Your task to perform on an android device: Open Yahoo.com Image 0: 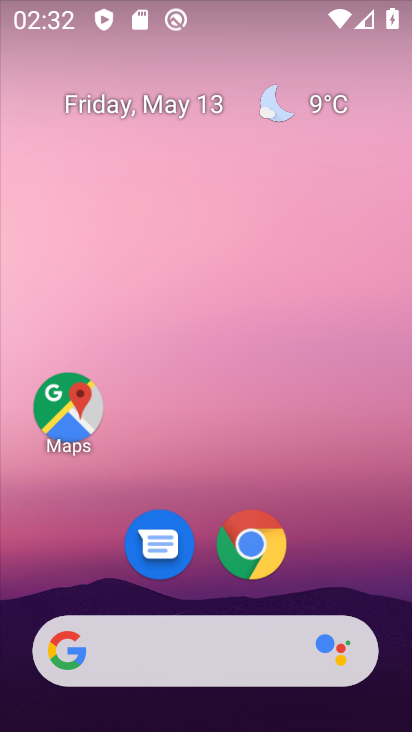
Step 0: drag from (326, 567) to (241, 31)
Your task to perform on an android device: Open Yahoo.com Image 1: 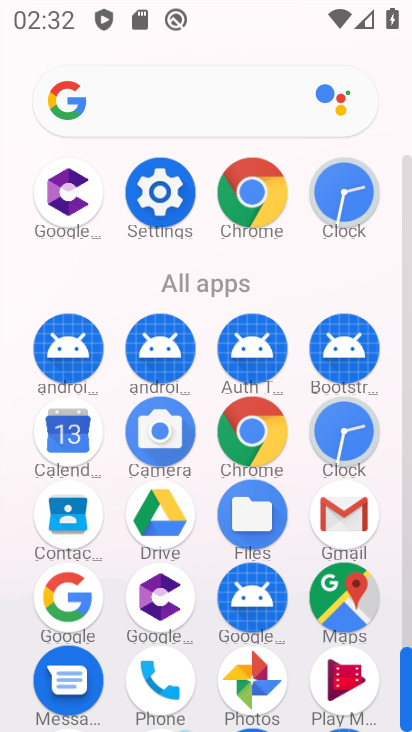
Step 1: click (253, 189)
Your task to perform on an android device: Open Yahoo.com Image 2: 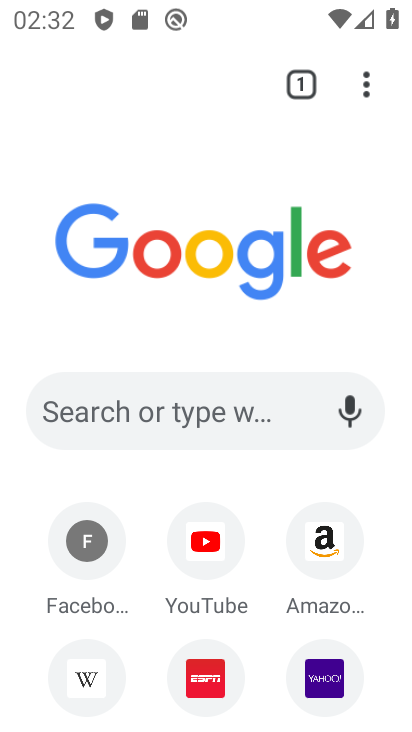
Step 2: click (252, 416)
Your task to perform on an android device: Open Yahoo.com Image 3: 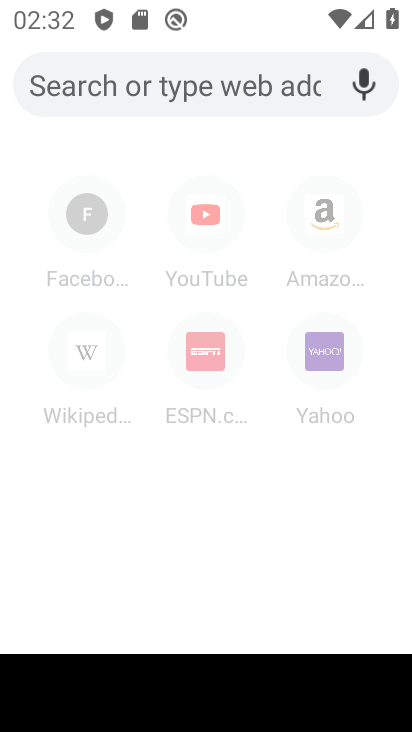
Step 3: type "Yahoo.com"
Your task to perform on an android device: Open Yahoo.com Image 4: 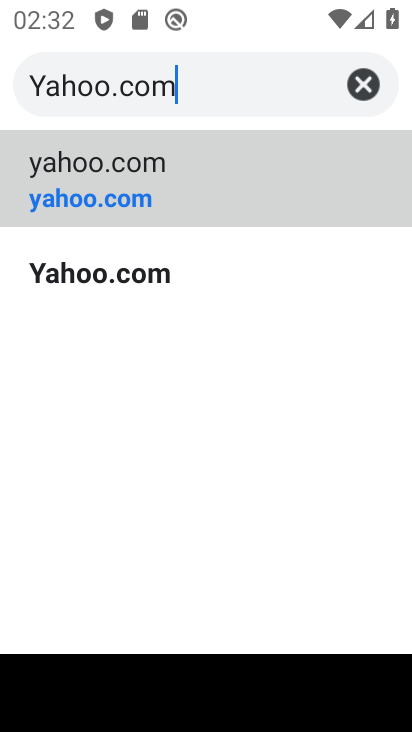
Step 4: type ""
Your task to perform on an android device: Open Yahoo.com Image 5: 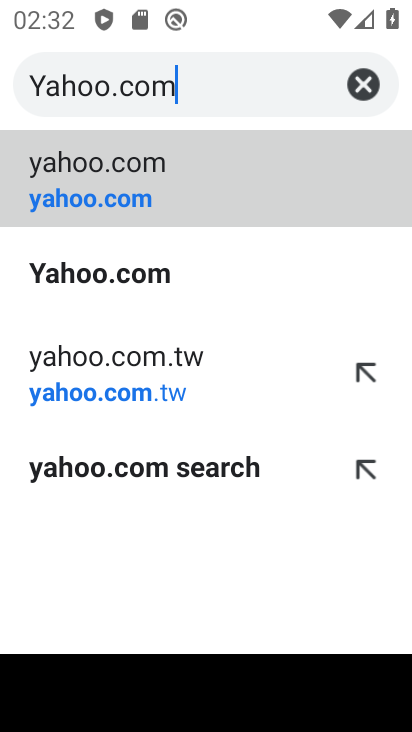
Step 5: click (151, 183)
Your task to perform on an android device: Open Yahoo.com Image 6: 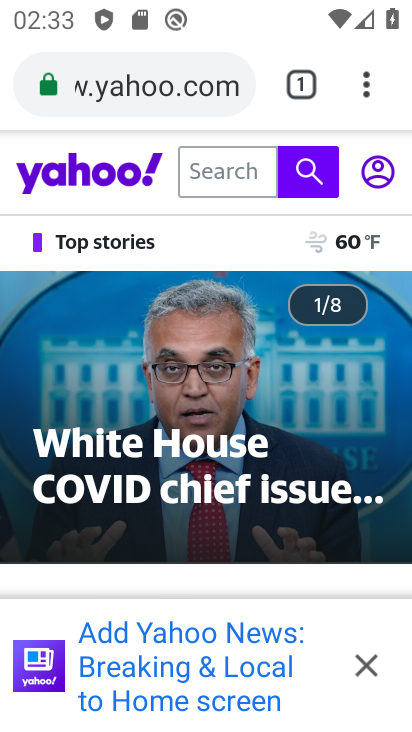
Step 6: task complete